Your task to perform on an android device: Open Yahoo.com Image 0: 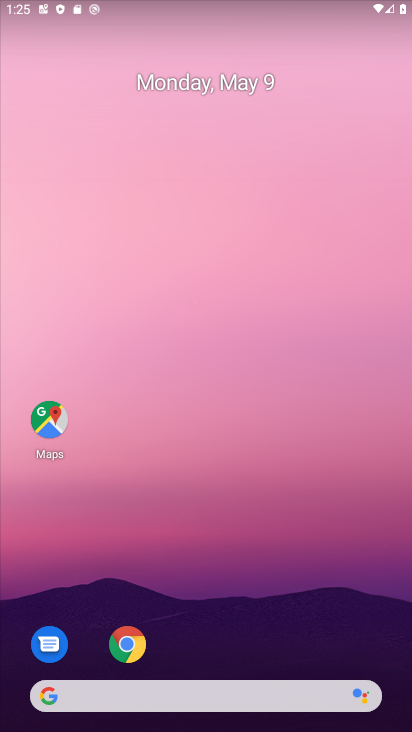
Step 0: click (135, 655)
Your task to perform on an android device: Open Yahoo.com Image 1: 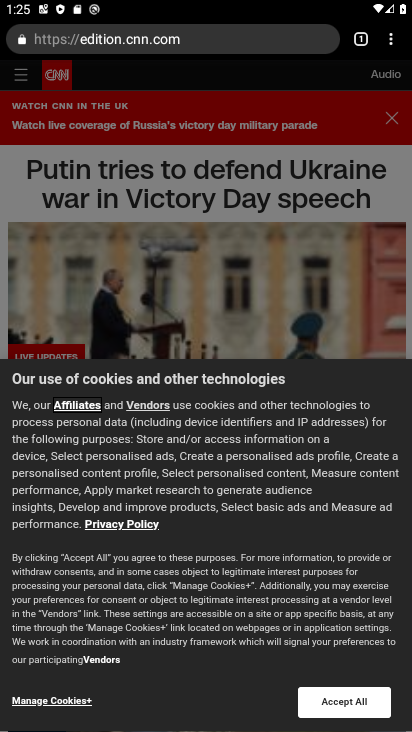
Step 1: click (367, 43)
Your task to perform on an android device: Open Yahoo.com Image 2: 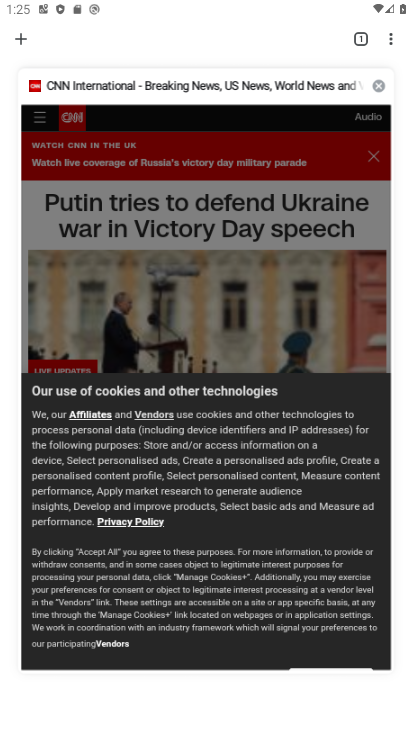
Step 2: click (23, 33)
Your task to perform on an android device: Open Yahoo.com Image 3: 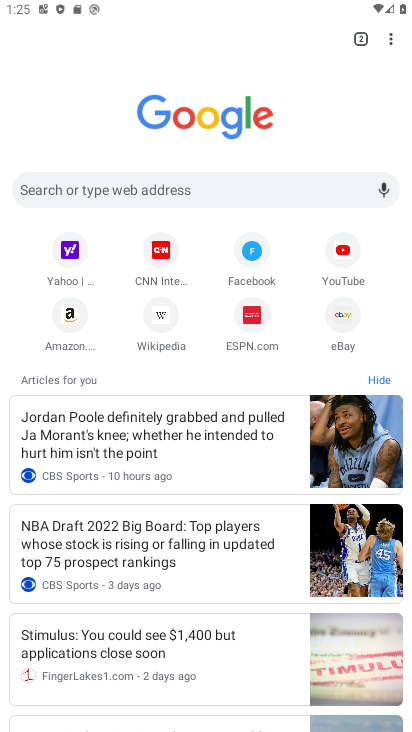
Step 3: click (76, 266)
Your task to perform on an android device: Open Yahoo.com Image 4: 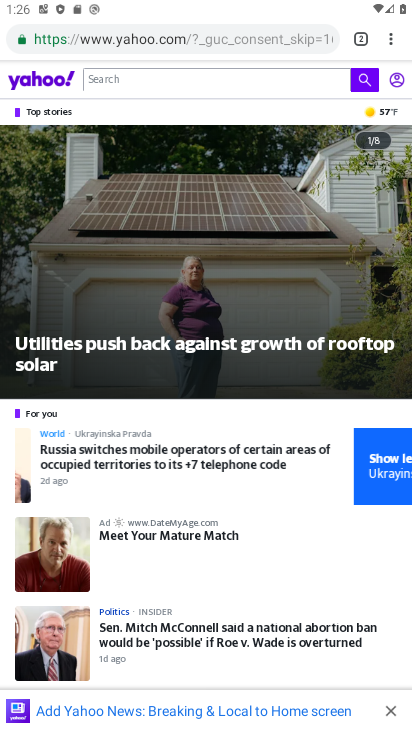
Step 4: task complete